Your task to perform on an android device: Open Android settings Image 0: 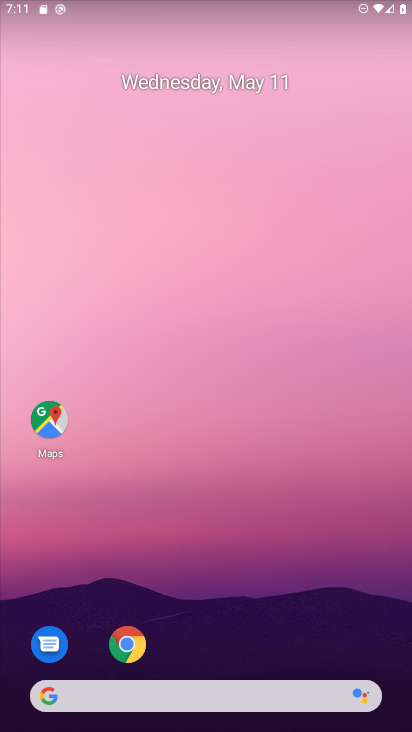
Step 0: drag from (263, 536) to (195, 141)
Your task to perform on an android device: Open Android settings Image 1: 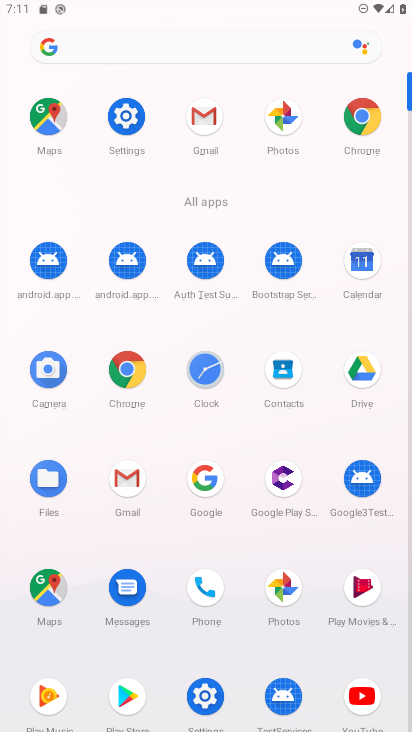
Step 1: click (122, 120)
Your task to perform on an android device: Open Android settings Image 2: 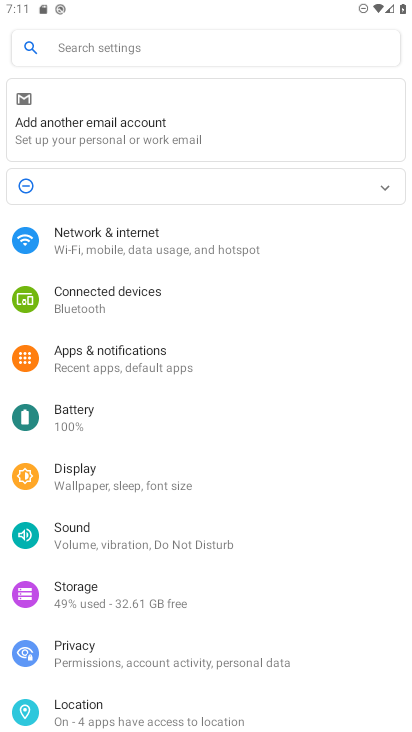
Step 2: task complete